Your task to perform on an android device: Do I have any events today? Image 0: 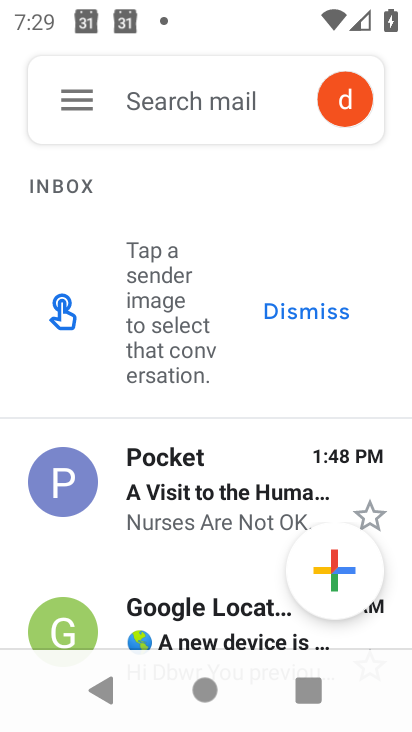
Step 0: press home button
Your task to perform on an android device: Do I have any events today? Image 1: 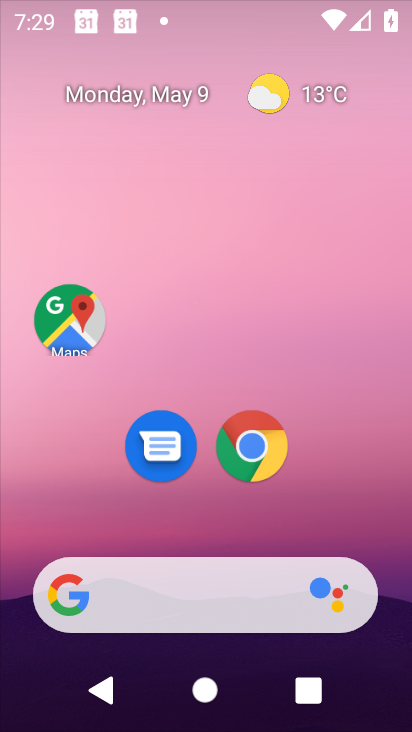
Step 1: drag from (299, 499) to (374, 89)
Your task to perform on an android device: Do I have any events today? Image 2: 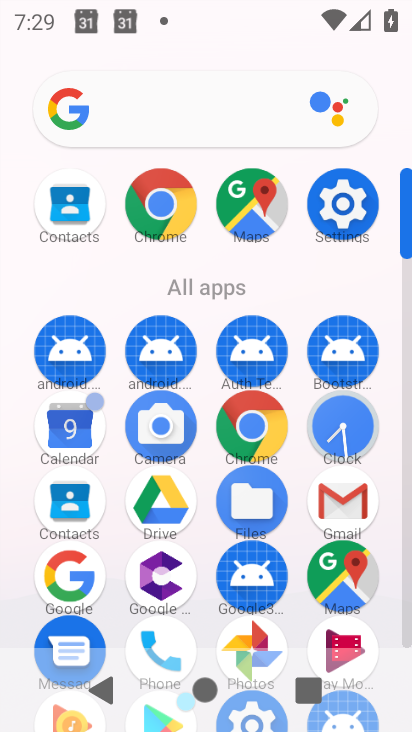
Step 2: click (77, 414)
Your task to perform on an android device: Do I have any events today? Image 3: 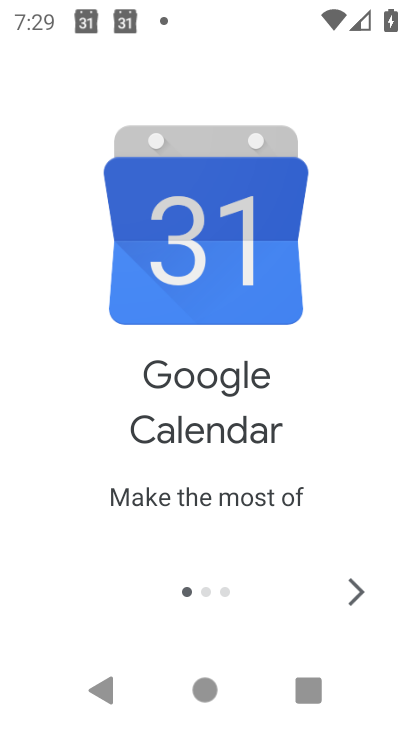
Step 3: click (348, 597)
Your task to perform on an android device: Do I have any events today? Image 4: 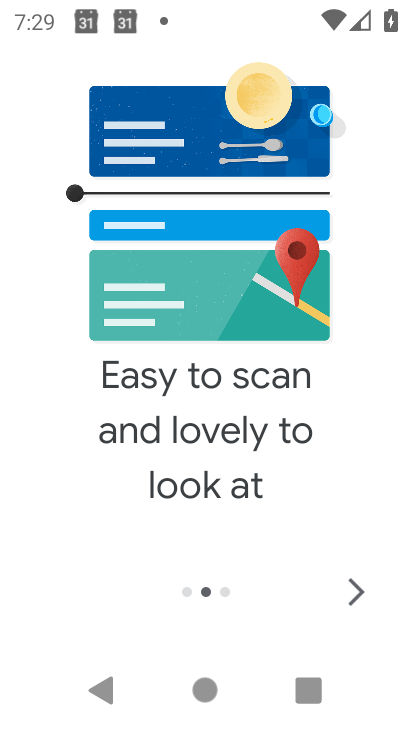
Step 4: click (353, 606)
Your task to perform on an android device: Do I have any events today? Image 5: 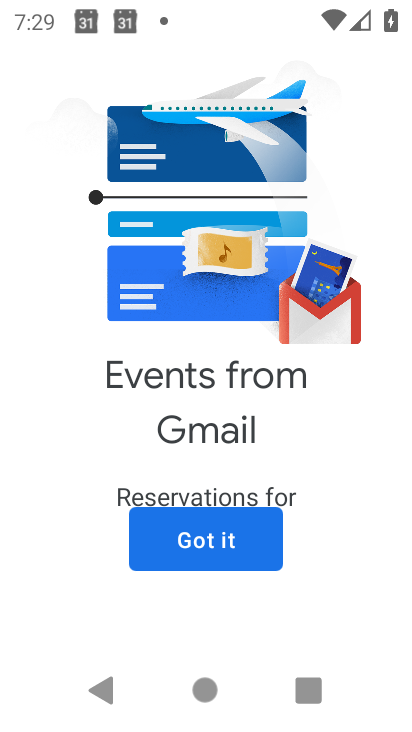
Step 5: click (180, 548)
Your task to perform on an android device: Do I have any events today? Image 6: 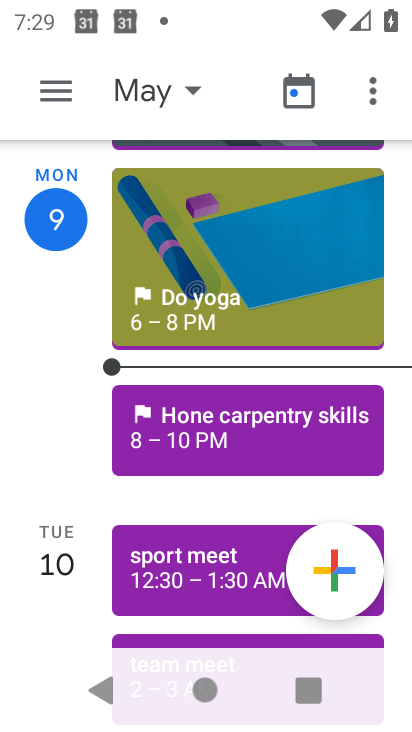
Step 6: task complete